Your task to perform on an android device: turn off airplane mode Image 0: 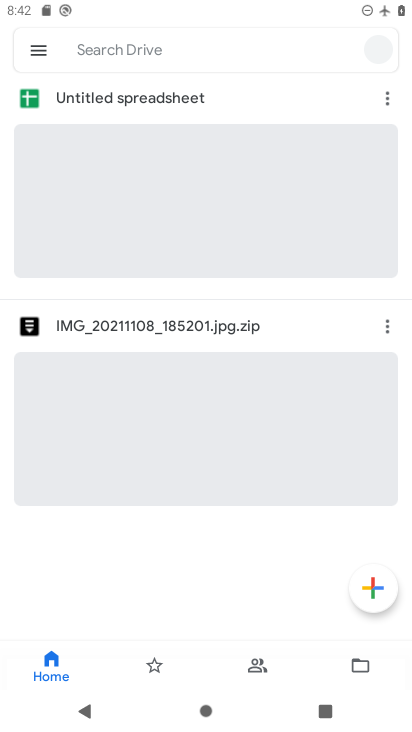
Step 0: press home button
Your task to perform on an android device: turn off airplane mode Image 1: 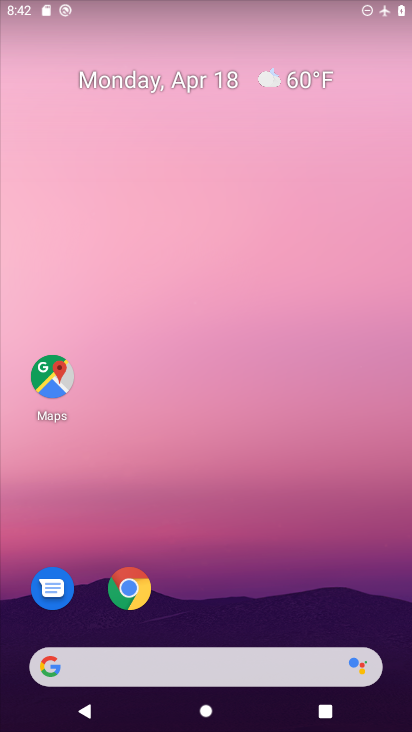
Step 1: drag from (397, 640) to (352, 131)
Your task to perform on an android device: turn off airplane mode Image 2: 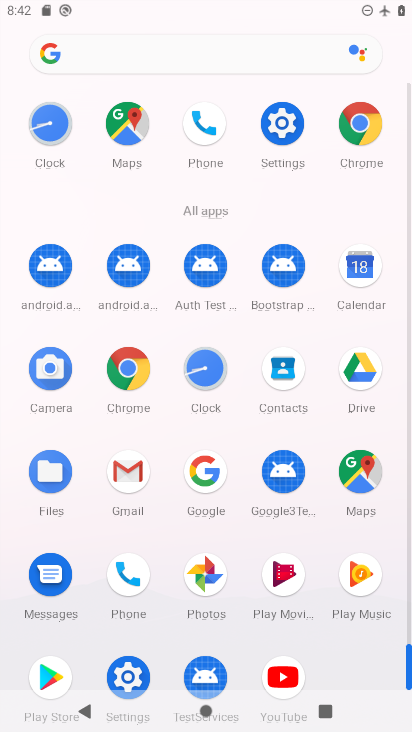
Step 2: click (124, 673)
Your task to perform on an android device: turn off airplane mode Image 3: 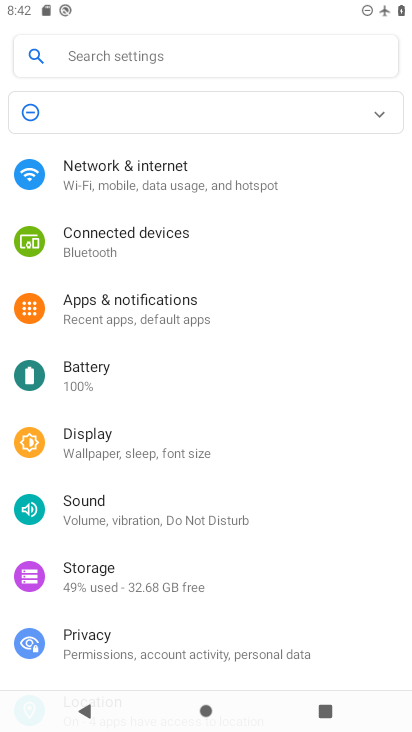
Step 3: click (112, 171)
Your task to perform on an android device: turn off airplane mode Image 4: 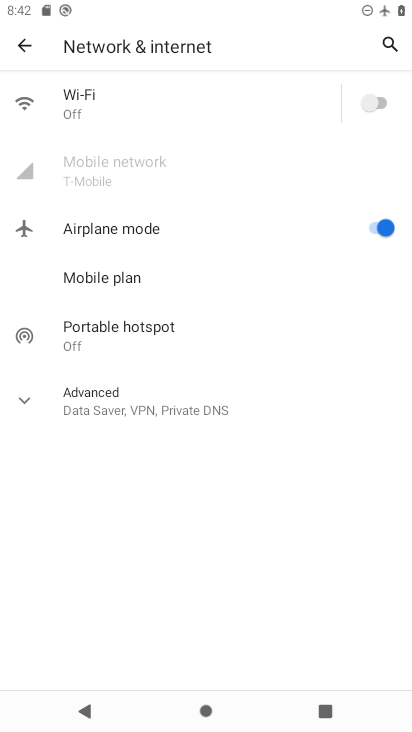
Step 4: click (372, 226)
Your task to perform on an android device: turn off airplane mode Image 5: 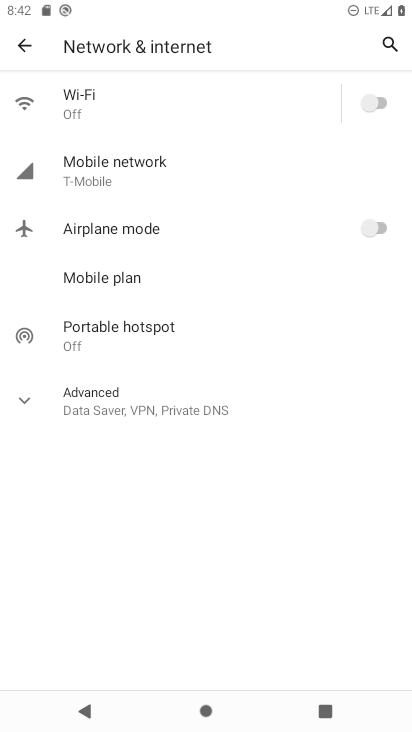
Step 5: task complete